Your task to perform on an android device: open app "Walmart Shopping & Grocery" Image 0: 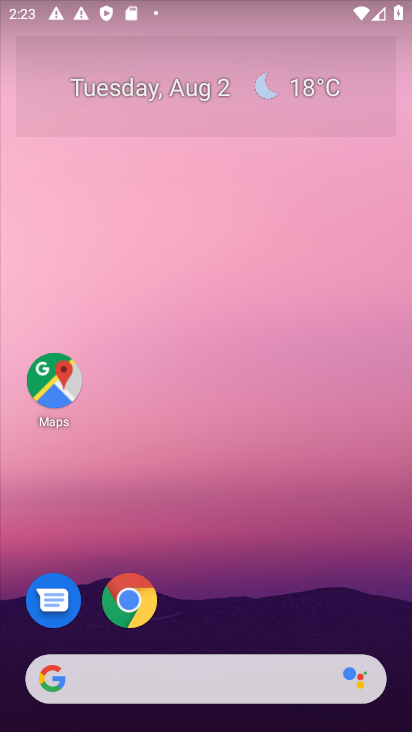
Step 0: drag from (141, 724) to (229, 142)
Your task to perform on an android device: open app "Walmart Shopping & Grocery" Image 1: 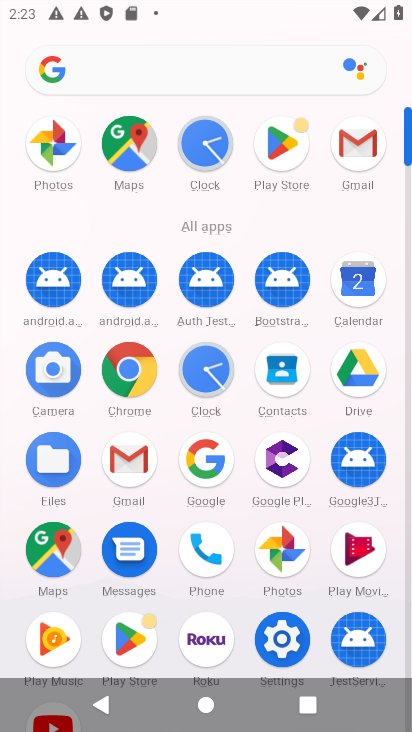
Step 1: click (280, 147)
Your task to perform on an android device: open app "Walmart Shopping & Grocery" Image 2: 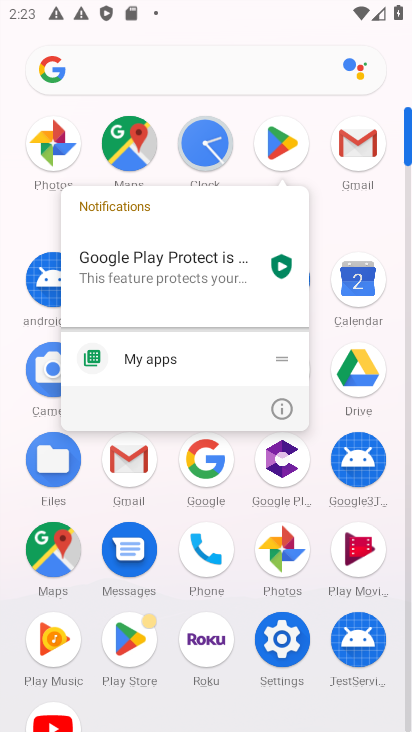
Step 2: click (268, 150)
Your task to perform on an android device: open app "Walmart Shopping & Grocery" Image 3: 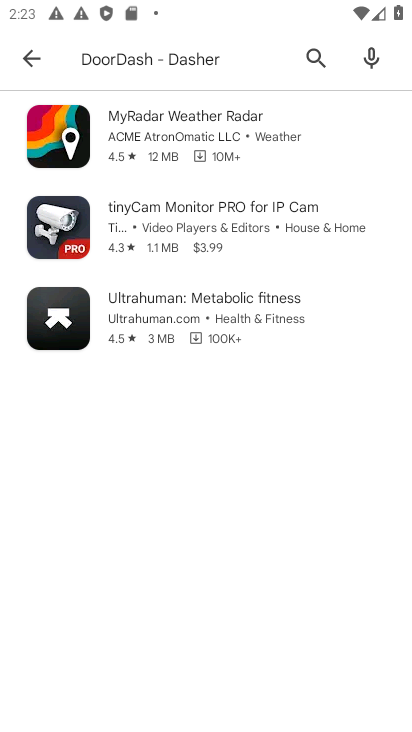
Step 3: click (315, 53)
Your task to perform on an android device: open app "Walmart Shopping & Grocery" Image 4: 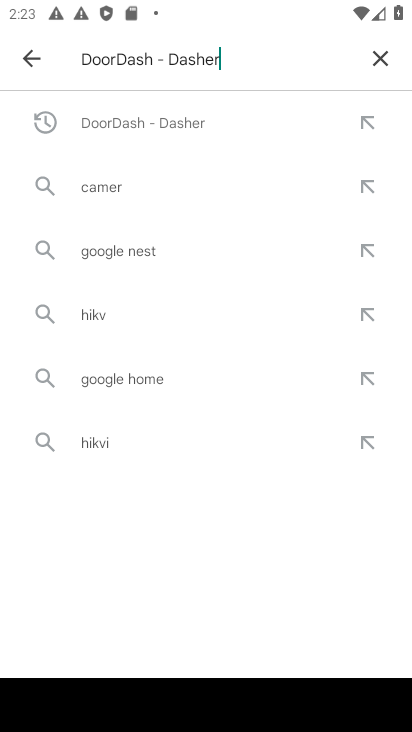
Step 4: click (381, 59)
Your task to perform on an android device: open app "Walmart Shopping & Grocery" Image 5: 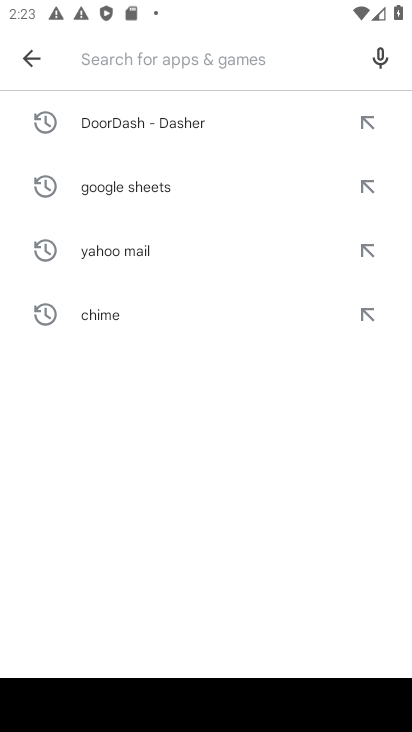
Step 5: type "walmart shopping "
Your task to perform on an android device: open app "Walmart Shopping & Grocery" Image 6: 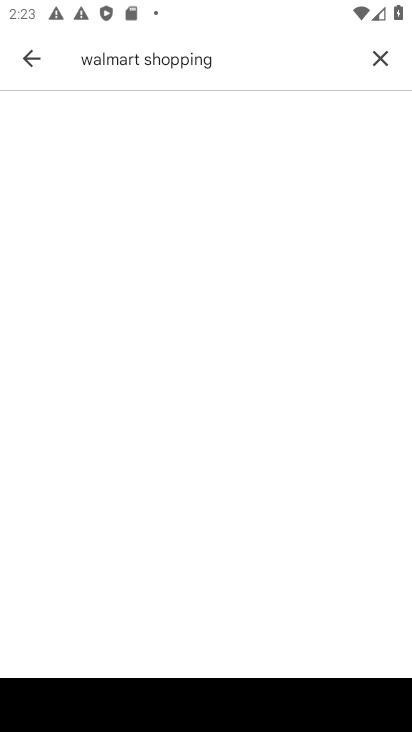
Step 6: press enter
Your task to perform on an android device: open app "Walmart Shopping & Grocery" Image 7: 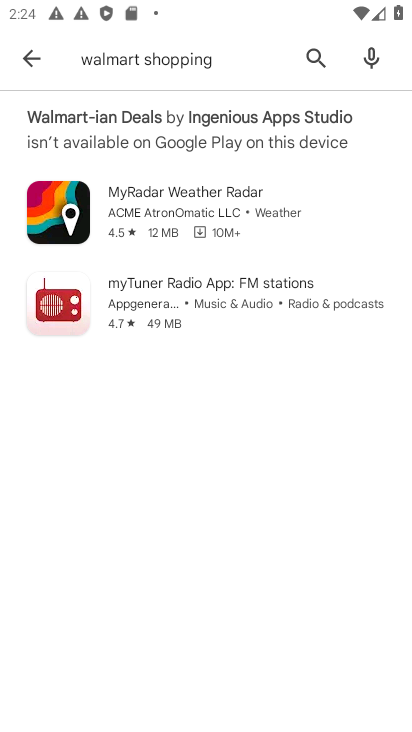
Step 7: task complete